Your task to perform on an android device: Open eBay Image 0: 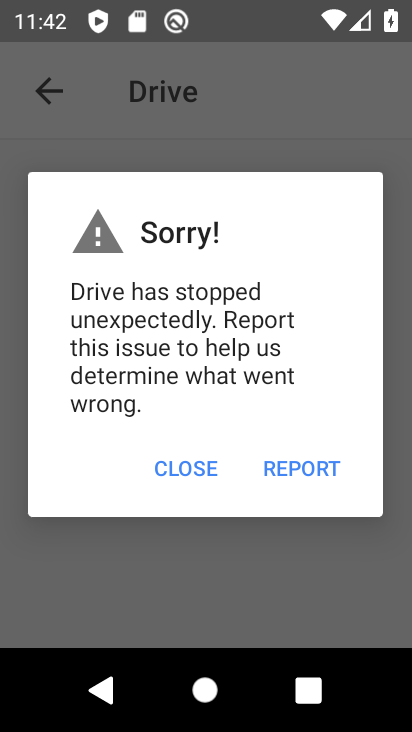
Step 0: press home button
Your task to perform on an android device: Open eBay Image 1: 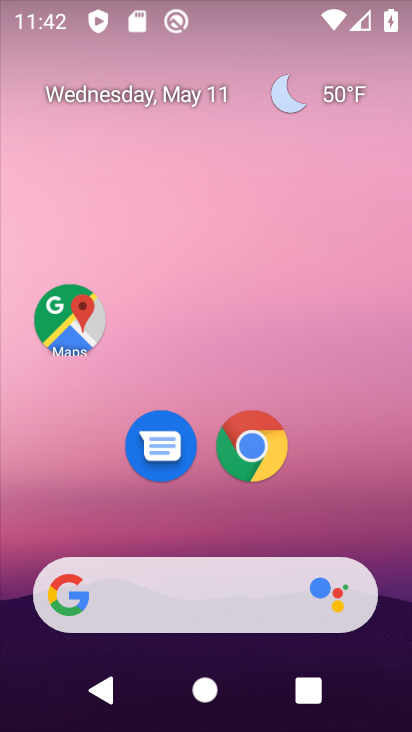
Step 1: click (269, 469)
Your task to perform on an android device: Open eBay Image 2: 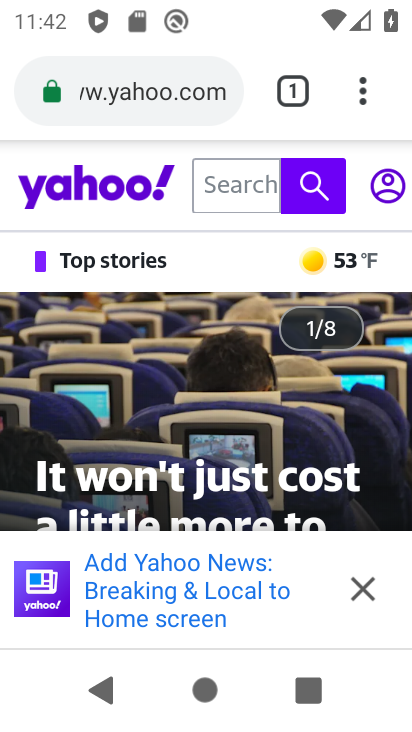
Step 2: click (288, 82)
Your task to perform on an android device: Open eBay Image 3: 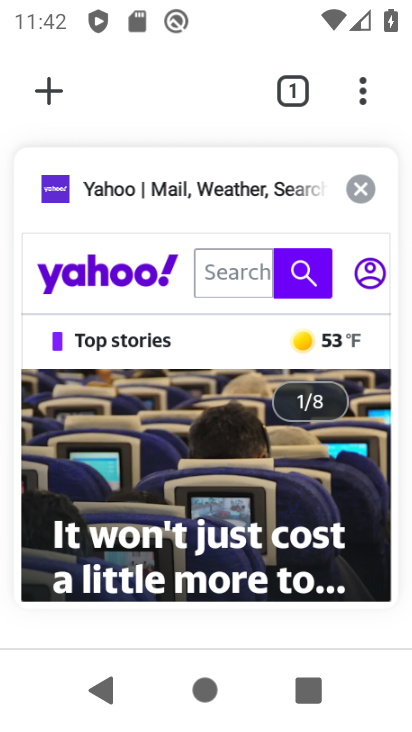
Step 3: click (45, 85)
Your task to perform on an android device: Open eBay Image 4: 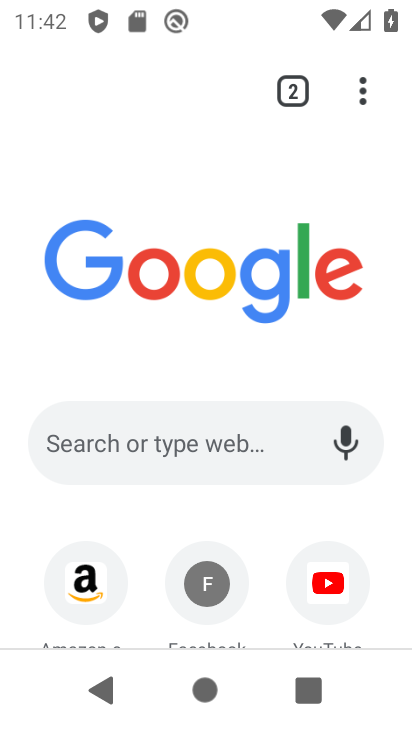
Step 4: drag from (177, 518) to (230, 82)
Your task to perform on an android device: Open eBay Image 5: 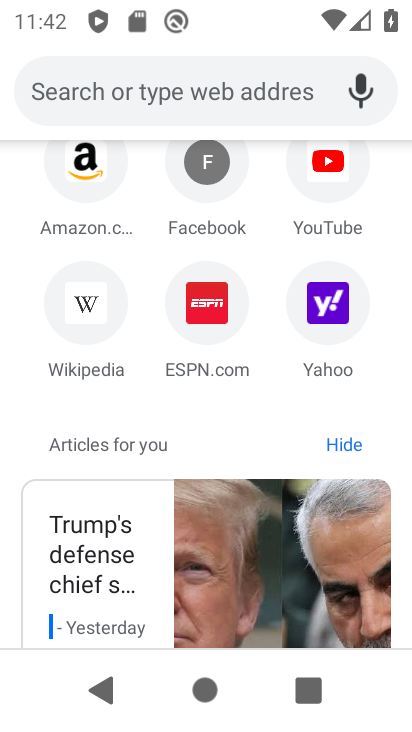
Step 5: click (218, 80)
Your task to perform on an android device: Open eBay Image 6: 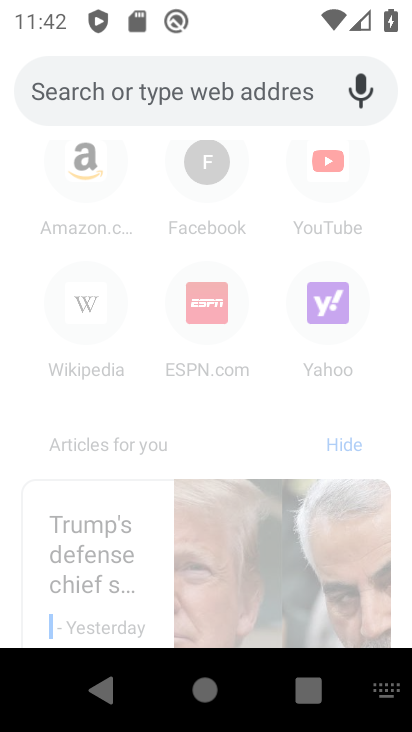
Step 6: type "ebay"
Your task to perform on an android device: Open eBay Image 7: 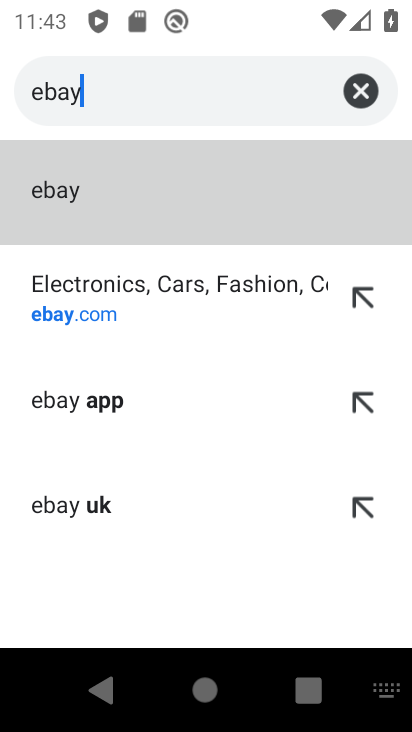
Step 7: click (160, 291)
Your task to perform on an android device: Open eBay Image 8: 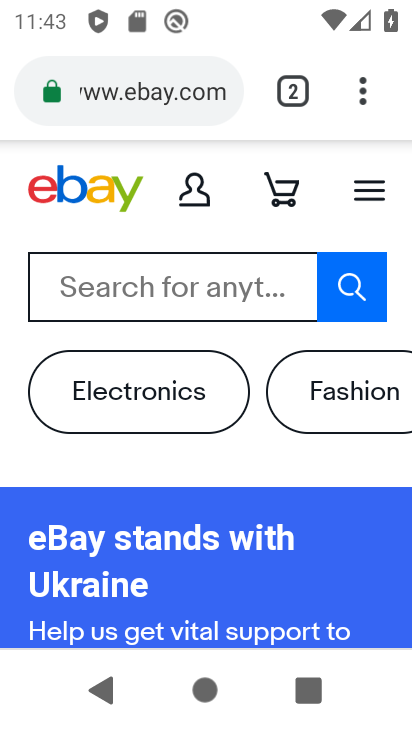
Step 8: task complete